Your task to perform on an android device: open a bookmark in the chrome app Image 0: 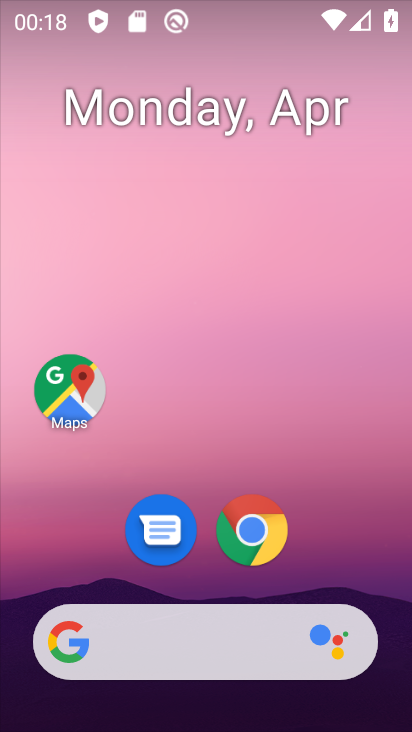
Step 0: drag from (221, 654) to (354, 46)
Your task to perform on an android device: open a bookmark in the chrome app Image 1: 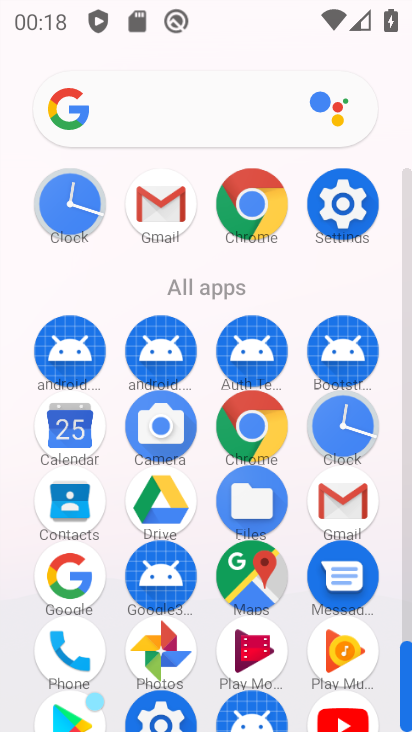
Step 1: click (262, 217)
Your task to perform on an android device: open a bookmark in the chrome app Image 2: 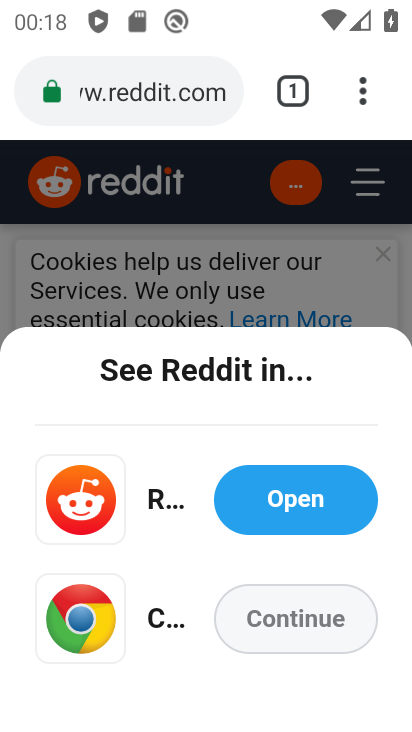
Step 2: task complete